Your task to perform on an android device: Search for Italian restaurants on Maps Image 0: 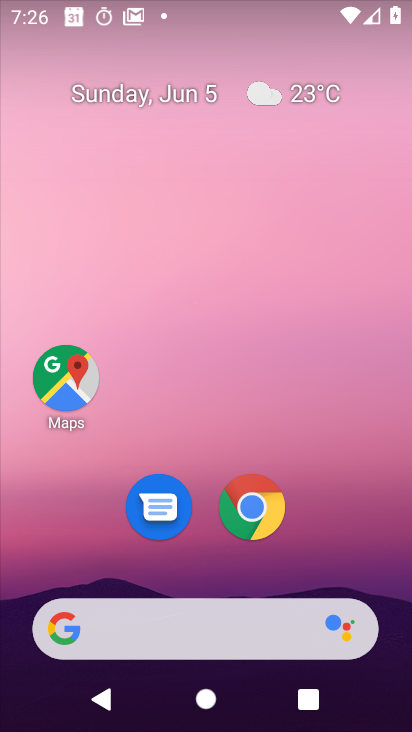
Step 0: drag from (311, 672) to (162, 161)
Your task to perform on an android device: Search for Italian restaurants on Maps Image 1: 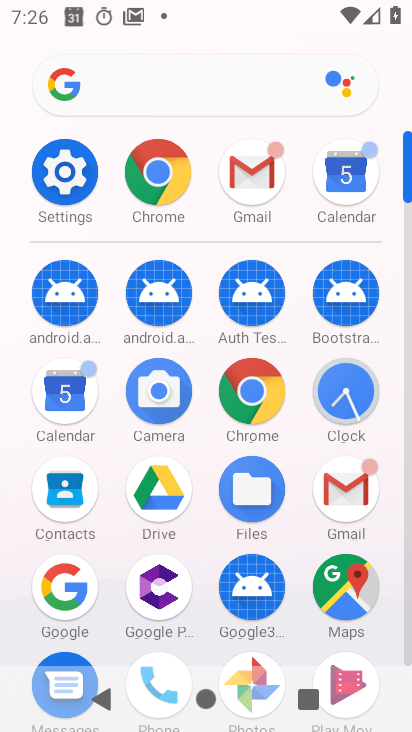
Step 1: click (380, 594)
Your task to perform on an android device: Search for Italian restaurants on Maps Image 2: 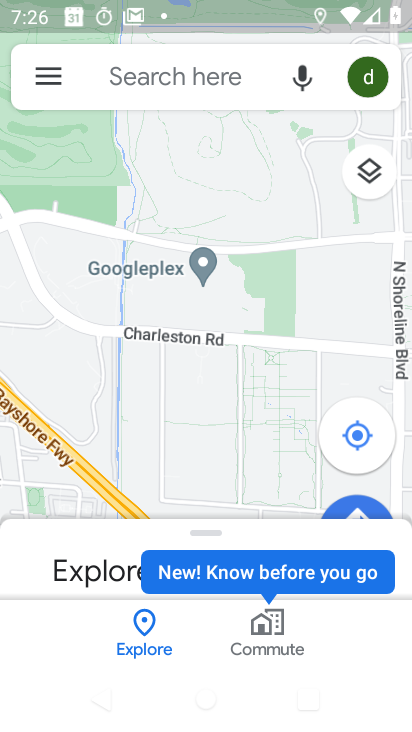
Step 2: click (103, 73)
Your task to perform on an android device: Search for Italian restaurants on Maps Image 3: 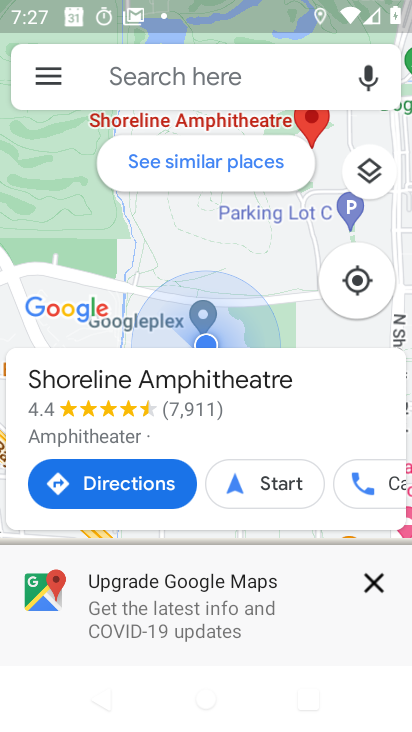
Step 3: click (171, 76)
Your task to perform on an android device: Search for Italian restaurants on Maps Image 4: 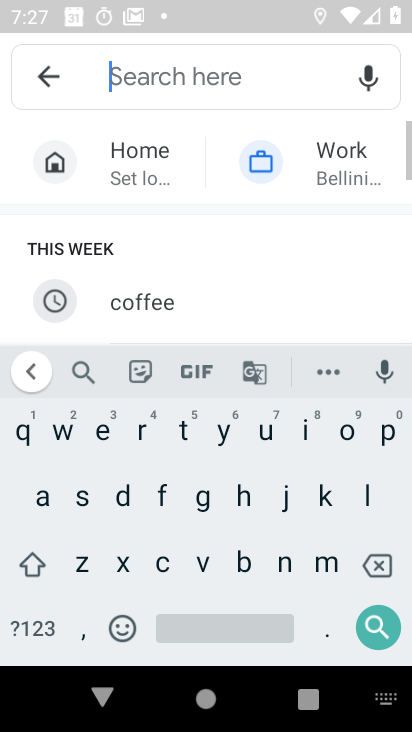
Step 4: click (299, 431)
Your task to perform on an android device: Search for Italian restaurants on Maps Image 5: 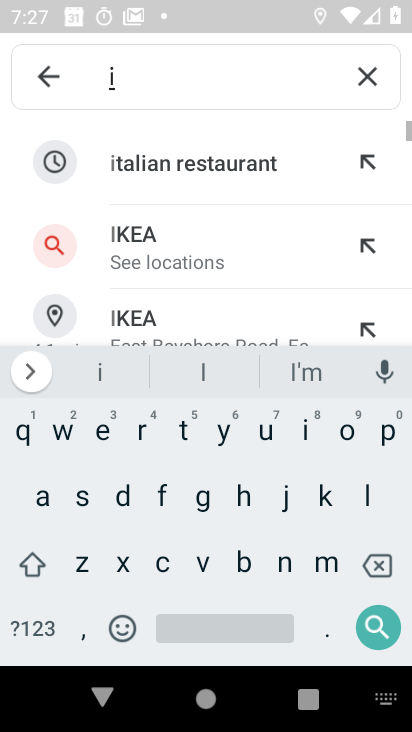
Step 5: click (190, 167)
Your task to perform on an android device: Search for Italian restaurants on Maps Image 6: 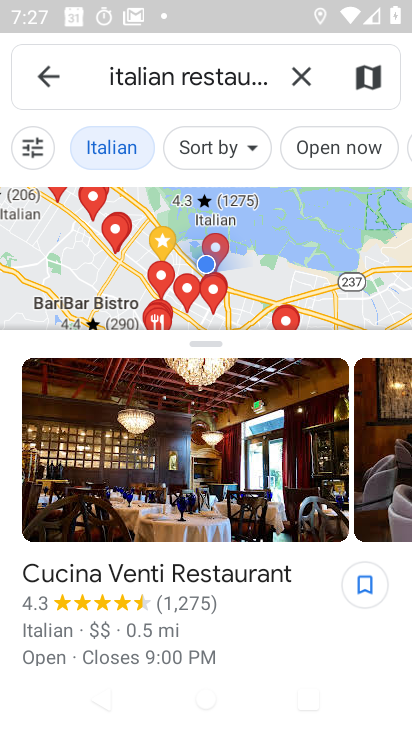
Step 6: task complete